Your task to perform on an android device: toggle notification dots Image 0: 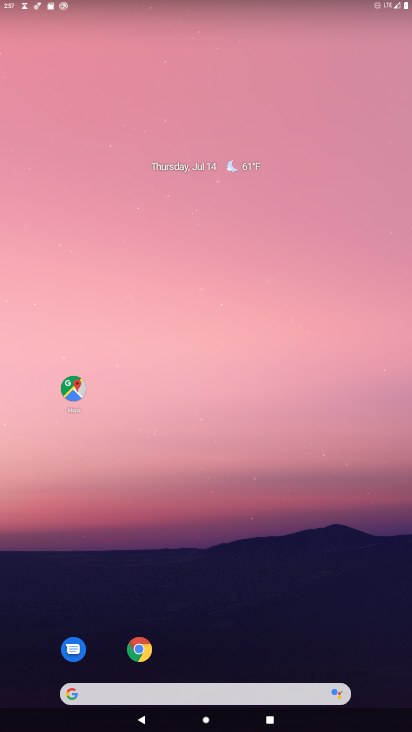
Step 0: drag from (210, 656) to (184, 82)
Your task to perform on an android device: toggle notification dots Image 1: 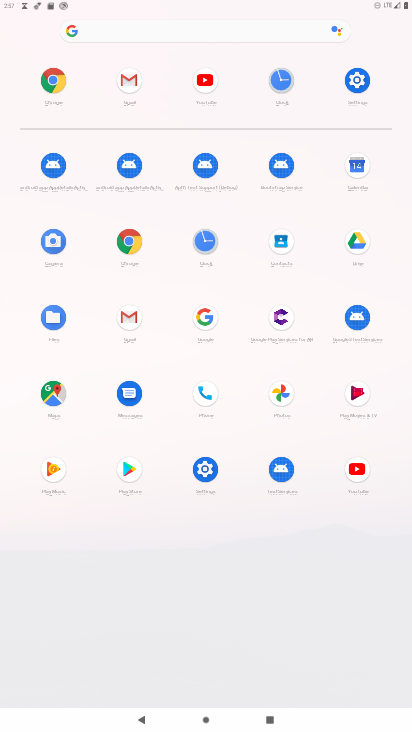
Step 1: click (347, 74)
Your task to perform on an android device: toggle notification dots Image 2: 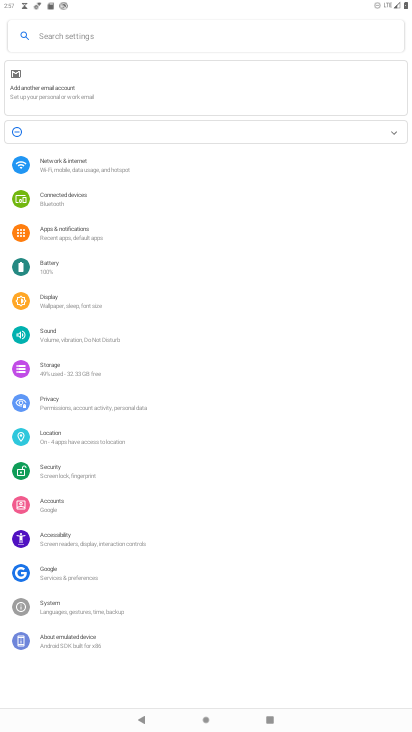
Step 2: click (81, 237)
Your task to perform on an android device: toggle notification dots Image 3: 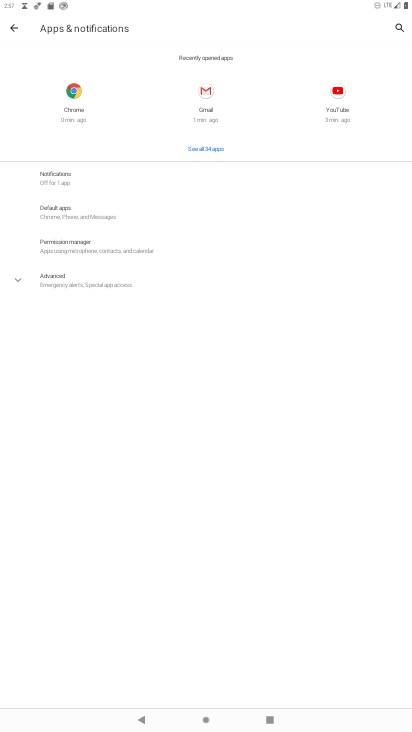
Step 3: click (72, 182)
Your task to perform on an android device: toggle notification dots Image 4: 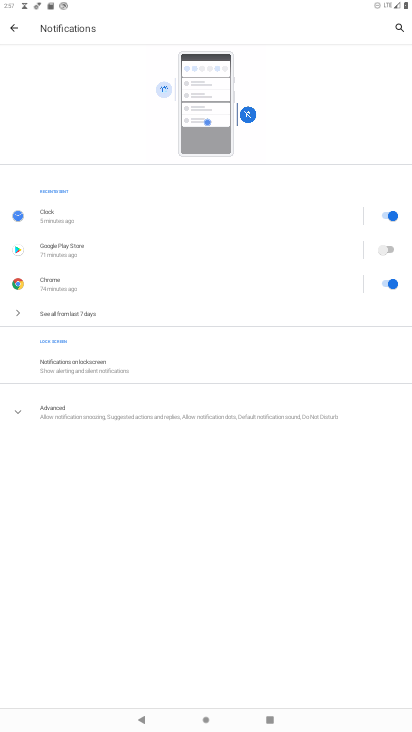
Step 4: click (123, 412)
Your task to perform on an android device: toggle notification dots Image 5: 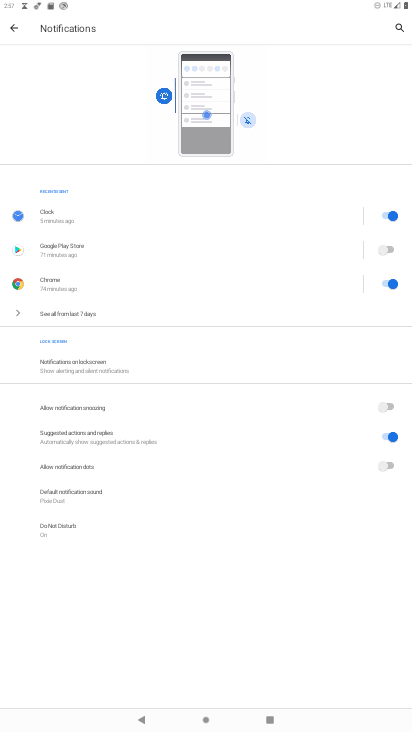
Step 5: click (390, 462)
Your task to perform on an android device: toggle notification dots Image 6: 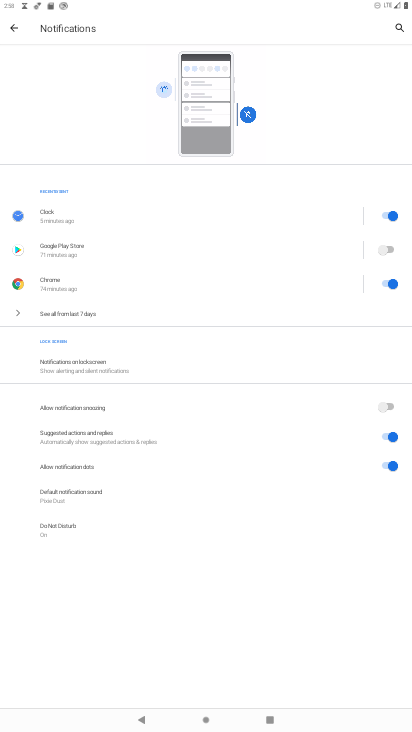
Step 6: task complete